Your task to perform on an android device: turn on improve location accuracy Image 0: 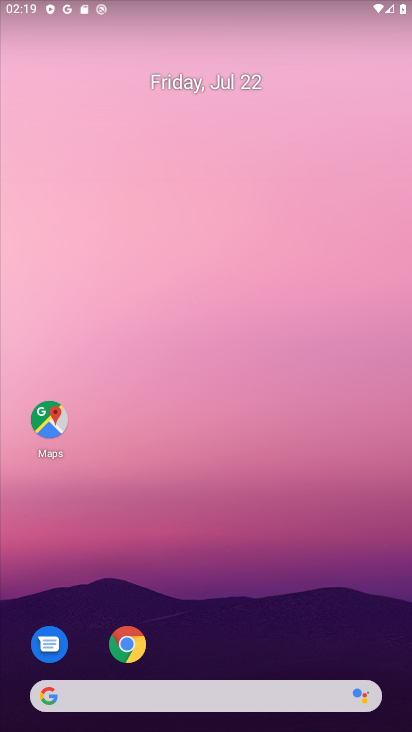
Step 0: drag from (155, 711) to (181, 54)
Your task to perform on an android device: turn on improve location accuracy Image 1: 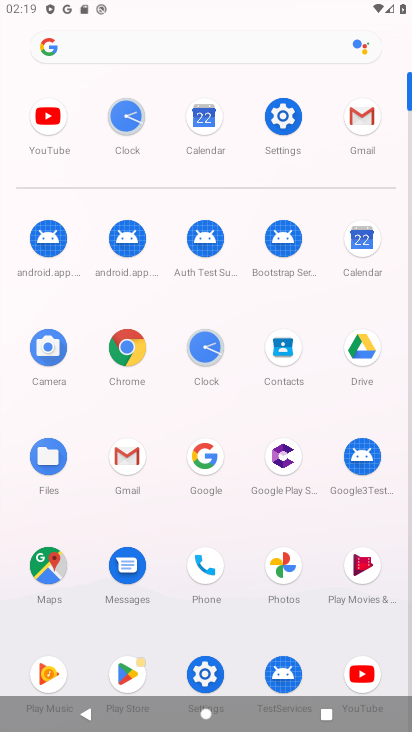
Step 1: click (293, 103)
Your task to perform on an android device: turn on improve location accuracy Image 2: 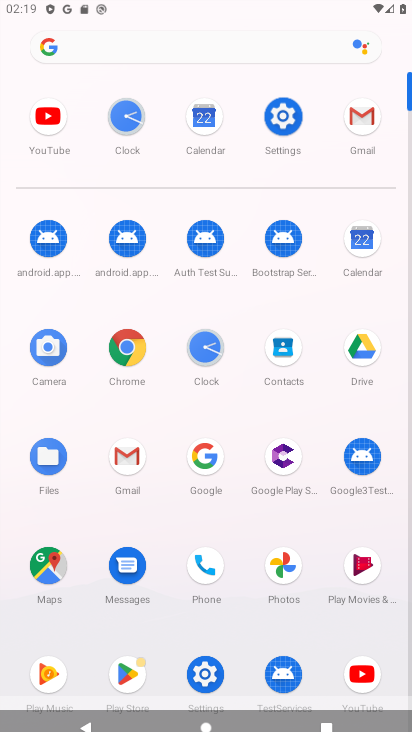
Step 2: click (293, 103)
Your task to perform on an android device: turn on improve location accuracy Image 3: 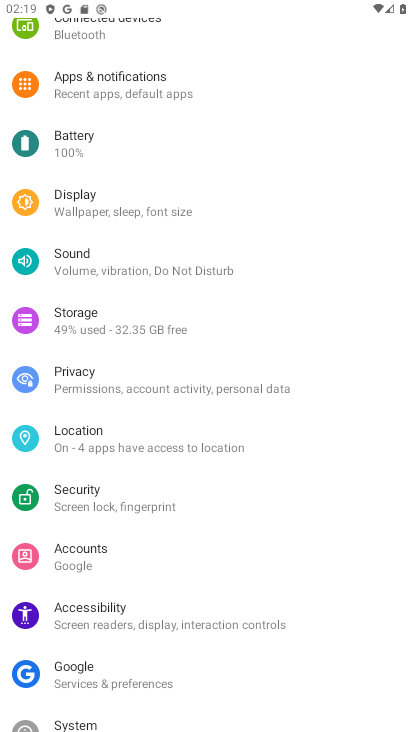
Step 3: click (178, 435)
Your task to perform on an android device: turn on improve location accuracy Image 4: 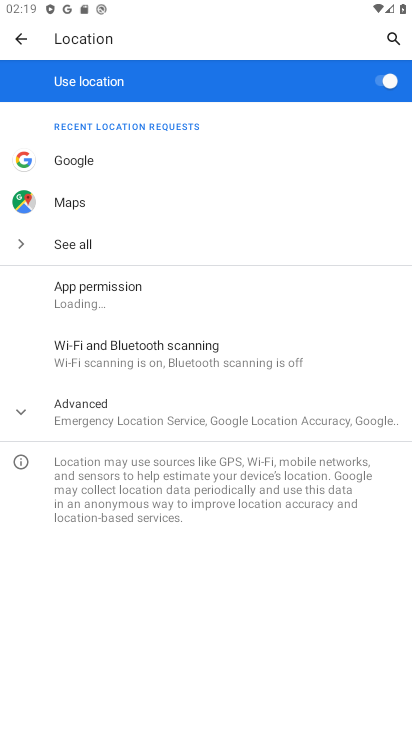
Step 4: click (234, 417)
Your task to perform on an android device: turn on improve location accuracy Image 5: 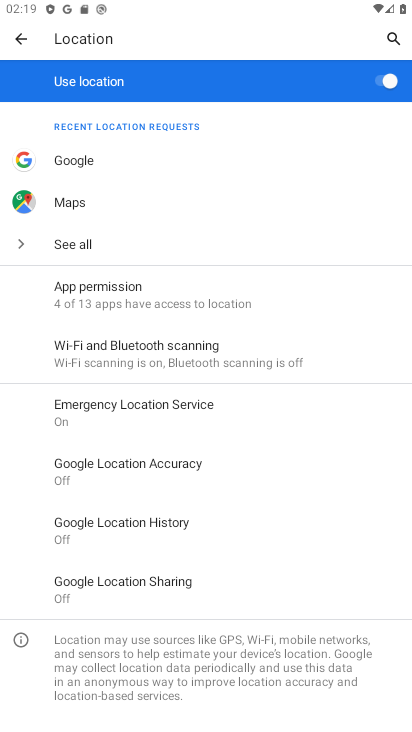
Step 5: click (181, 463)
Your task to perform on an android device: turn on improve location accuracy Image 6: 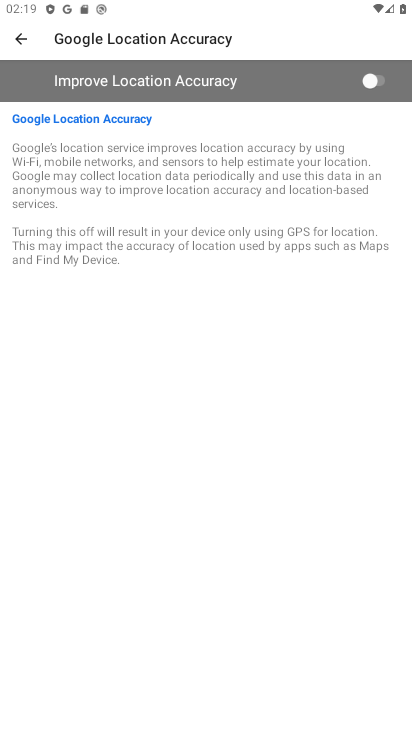
Step 6: click (375, 78)
Your task to perform on an android device: turn on improve location accuracy Image 7: 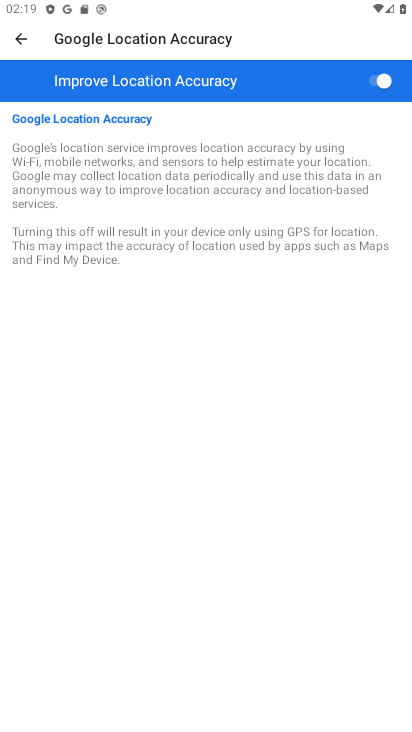
Step 7: task complete